Your task to perform on an android device: Go to location settings Image 0: 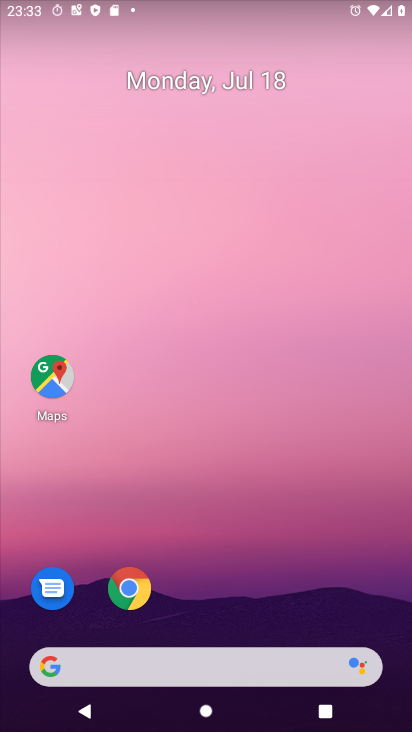
Step 0: press home button
Your task to perform on an android device: Go to location settings Image 1: 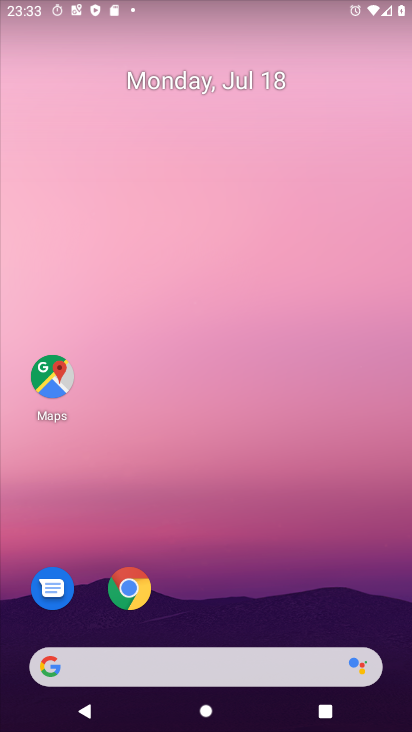
Step 1: drag from (196, 674) to (317, 142)
Your task to perform on an android device: Go to location settings Image 2: 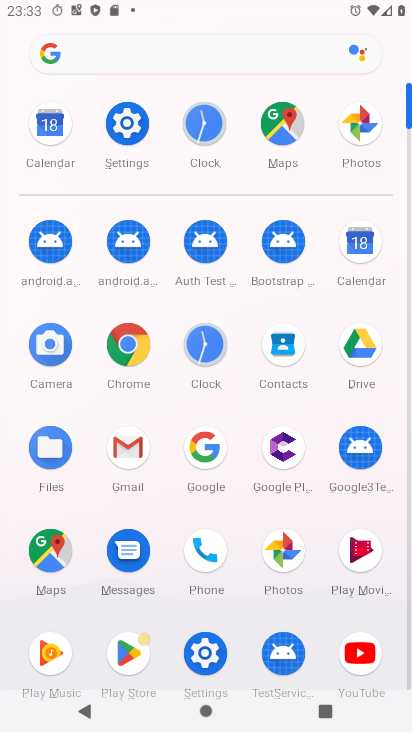
Step 2: click (125, 129)
Your task to perform on an android device: Go to location settings Image 3: 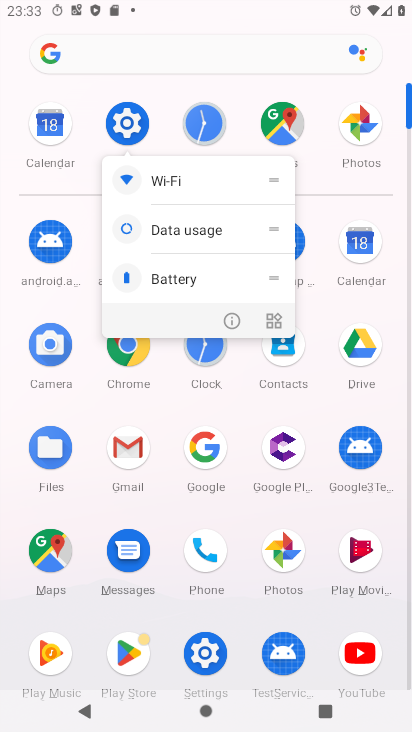
Step 3: click (125, 129)
Your task to perform on an android device: Go to location settings Image 4: 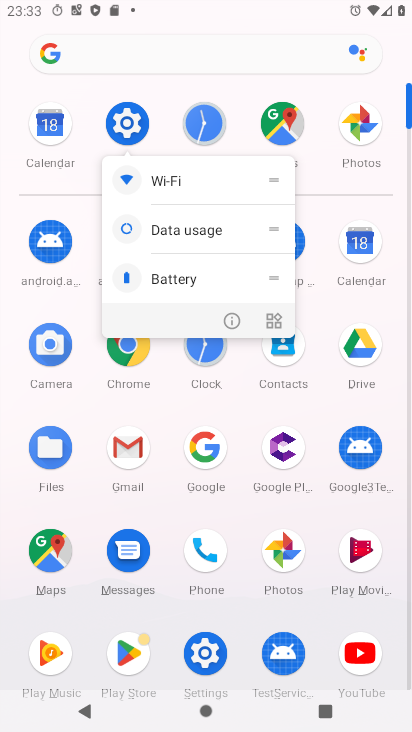
Step 4: click (126, 118)
Your task to perform on an android device: Go to location settings Image 5: 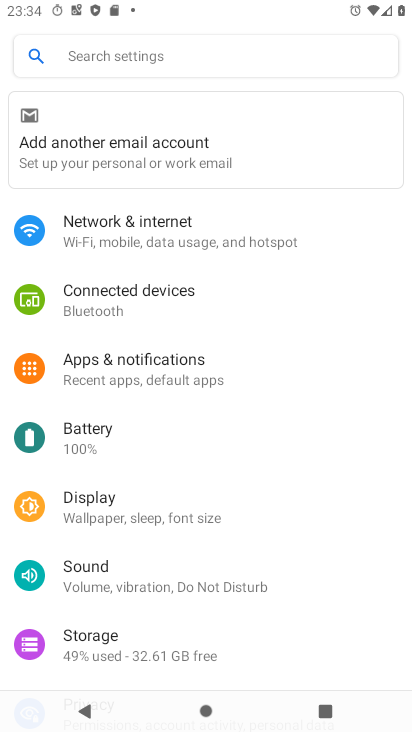
Step 5: drag from (271, 527) to (294, 287)
Your task to perform on an android device: Go to location settings Image 6: 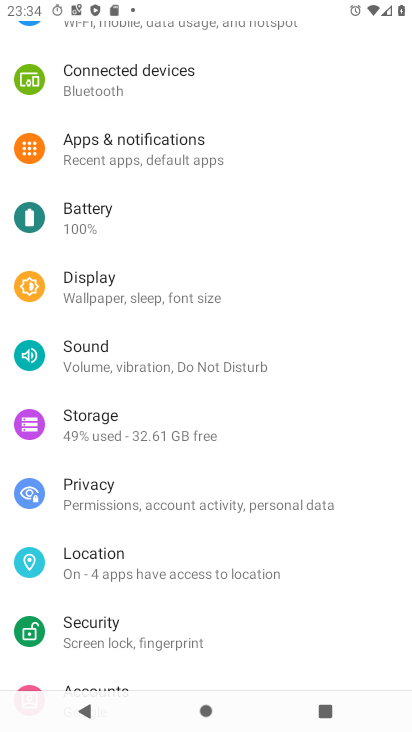
Step 6: click (105, 557)
Your task to perform on an android device: Go to location settings Image 7: 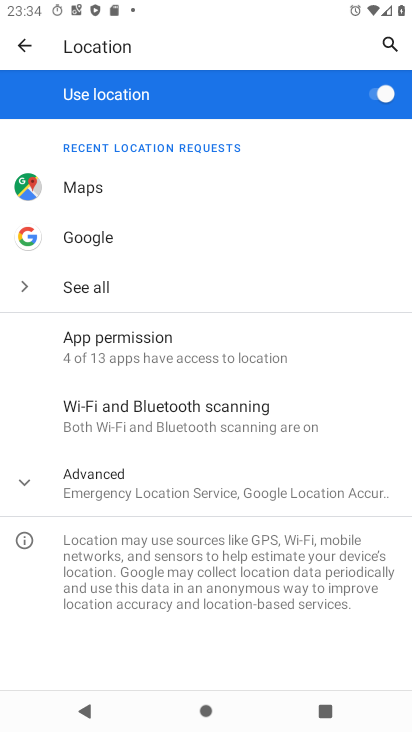
Step 7: task complete